Your task to perform on an android device: Open Google Maps Image 0: 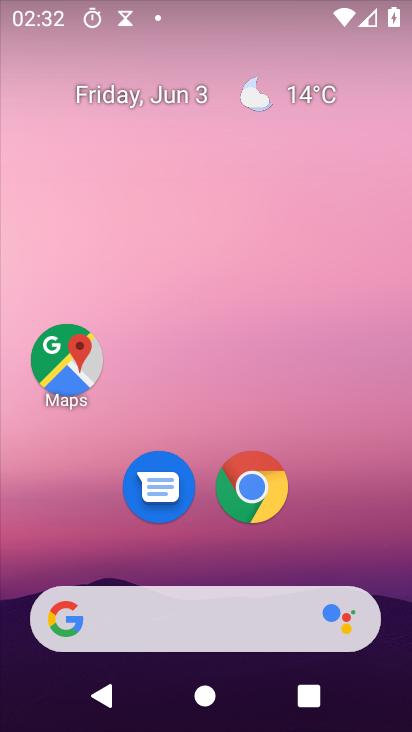
Step 0: drag from (226, 230) to (179, 728)
Your task to perform on an android device: Open Google Maps Image 1: 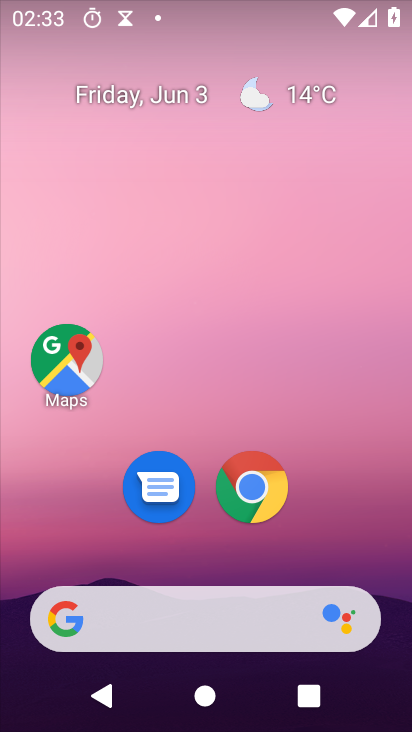
Step 1: click (73, 371)
Your task to perform on an android device: Open Google Maps Image 2: 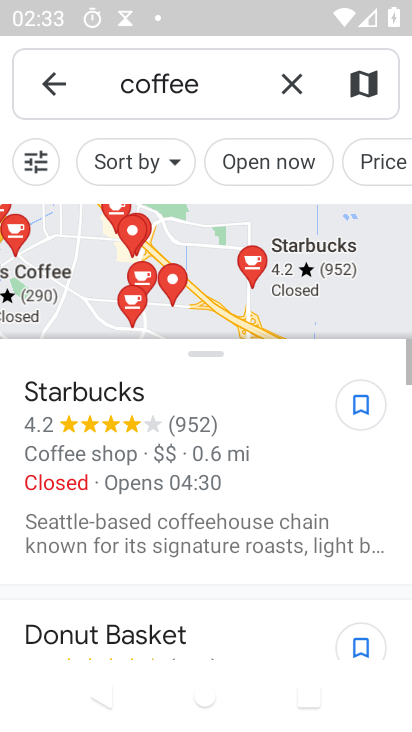
Step 2: task complete